Your task to perform on an android device: Open Chrome and go to settings Image 0: 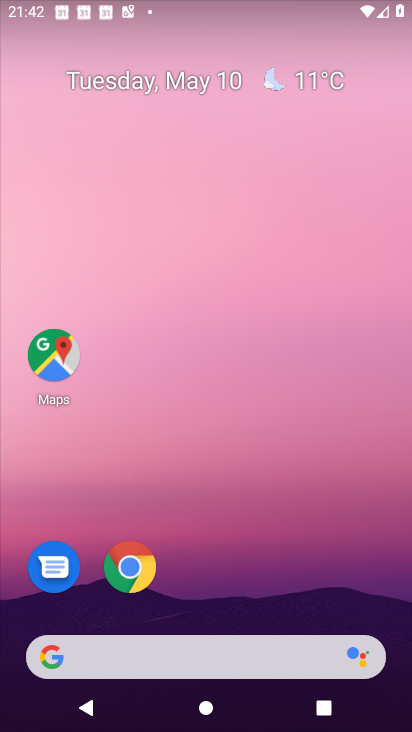
Step 0: drag from (196, 632) to (207, 319)
Your task to perform on an android device: Open Chrome and go to settings Image 1: 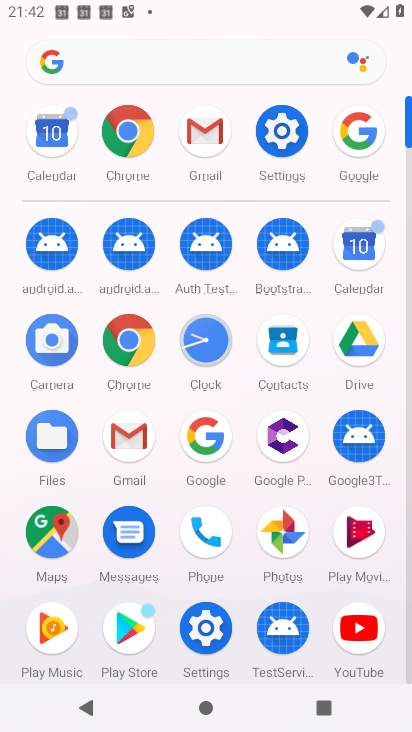
Step 1: click (129, 135)
Your task to perform on an android device: Open Chrome and go to settings Image 2: 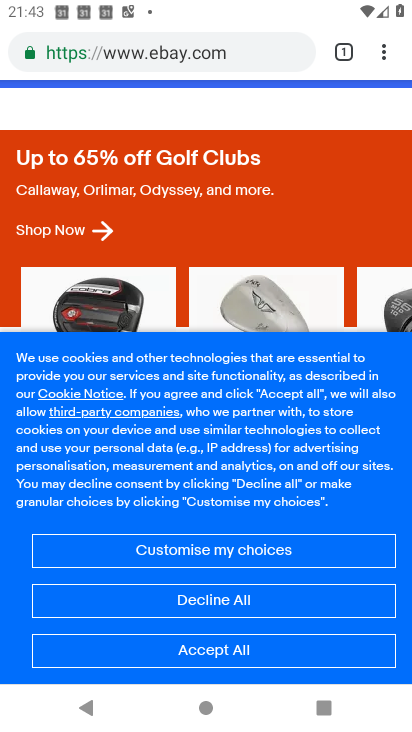
Step 2: click (366, 97)
Your task to perform on an android device: Open Chrome and go to settings Image 3: 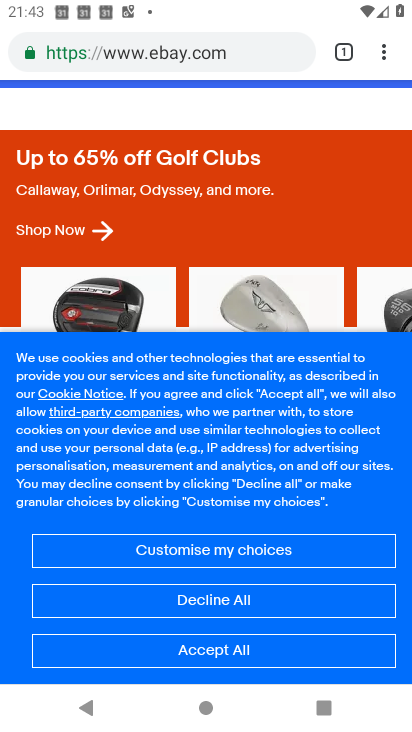
Step 3: click (383, 54)
Your task to perform on an android device: Open Chrome and go to settings Image 4: 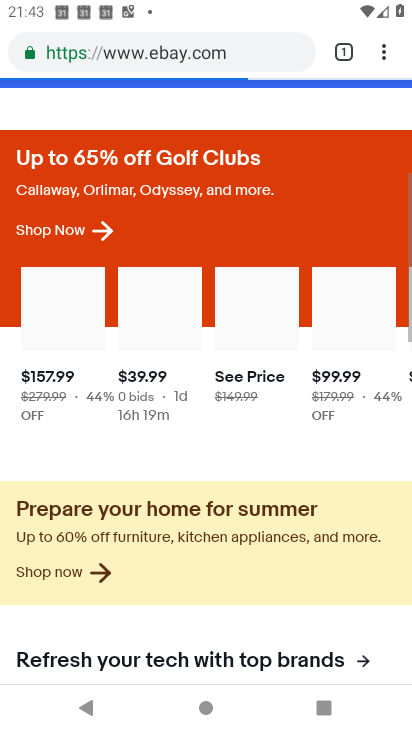
Step 4: click (383, 55)
Your task to perform on an android device: Open Chrome and go to settings Image 5: 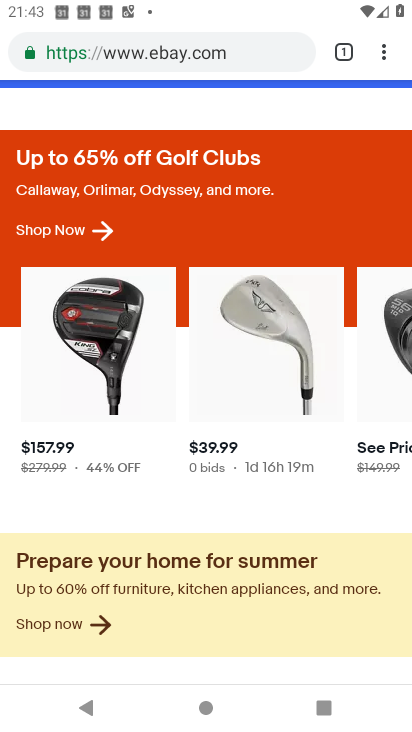
Step 5: click (383, 55)
Your task to perform on an android device: Open Chrome and go to settings Image 6: 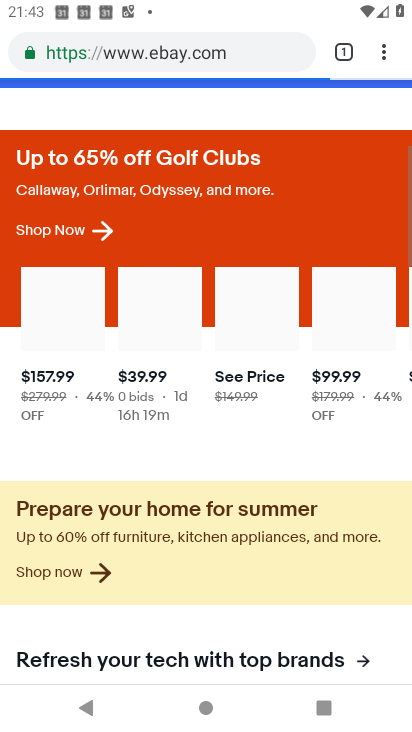
Step 6: click (383, 55)
Your task to perform on an android device: Open Chrome and go to settings Image 7: 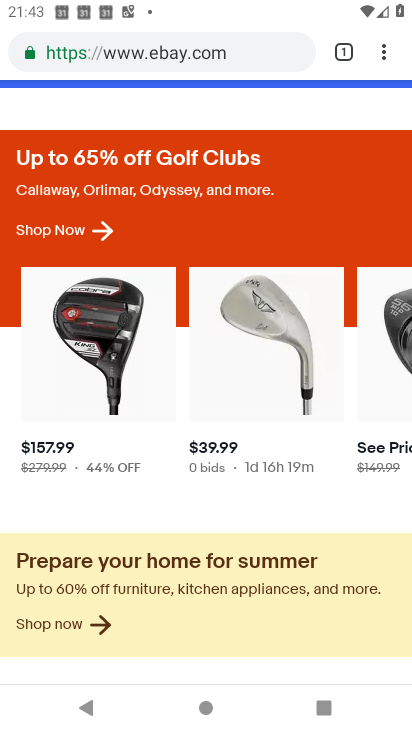
Step 7: click (383, 55)
Your task to perform on an android device: Open Chrome and go to settings Image 8: 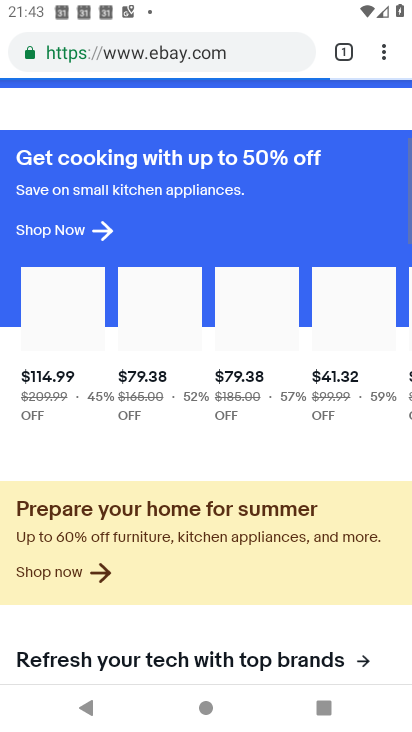
Step 8: click (383, 55)
Your task to perform on an android device: Open Chrome and go to settings Image 9: 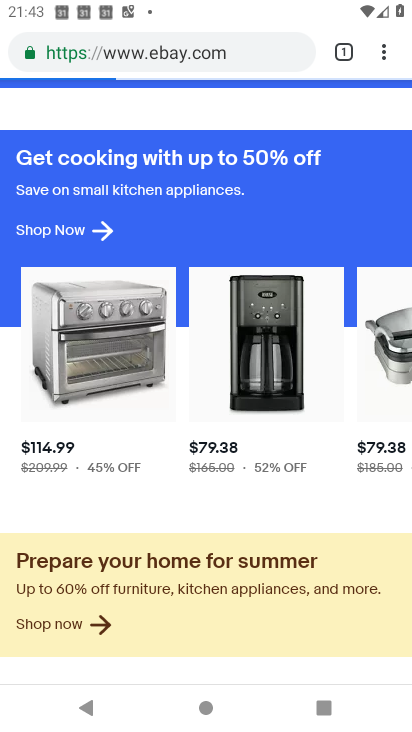
Step 9: click (380, 42)
Your task to perform on an android device: Open Chrome and go to settings Image 10: 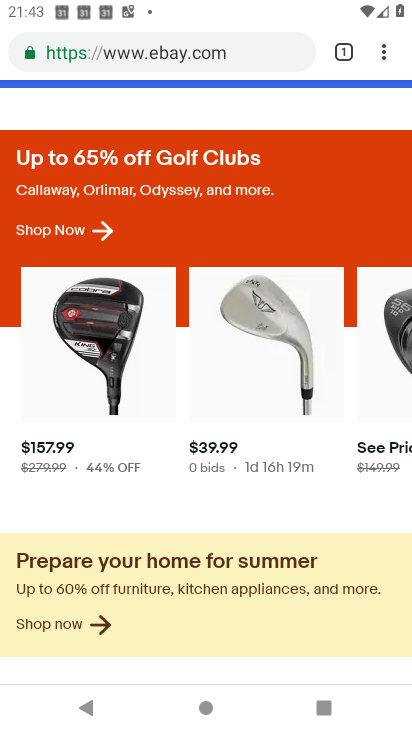
Step 10: click (385, 49)
Your task to perform on an android device: Open Chrome and go to settings Image 11: 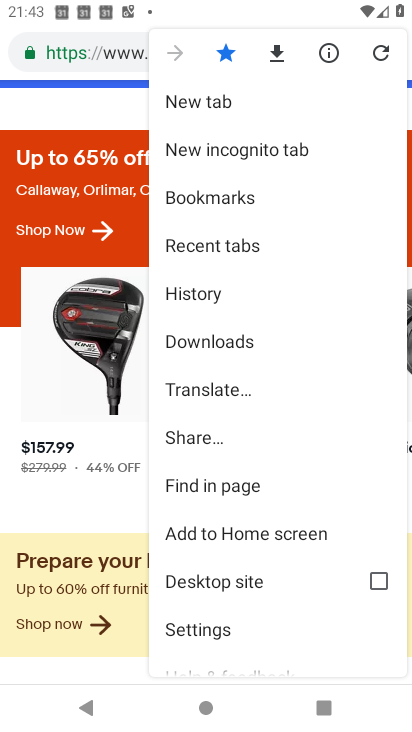
Step 11: click (200, 618)
Your task to perform on an android device: Open Chrome and go to settings Image 12: 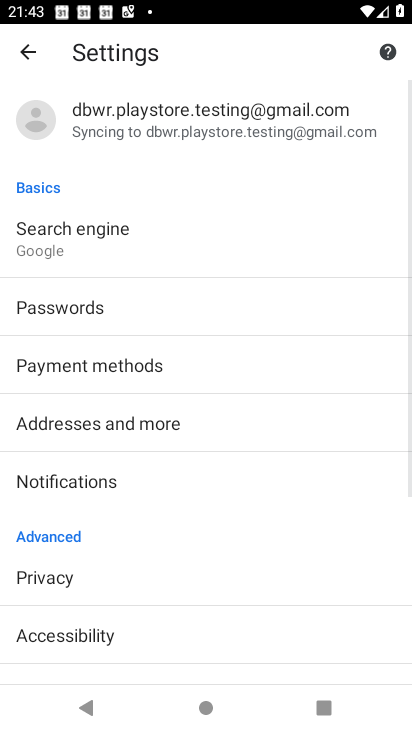
Step 12: task complete